Your task to perform on an android device: Find coffee shops on Maps Image 0: 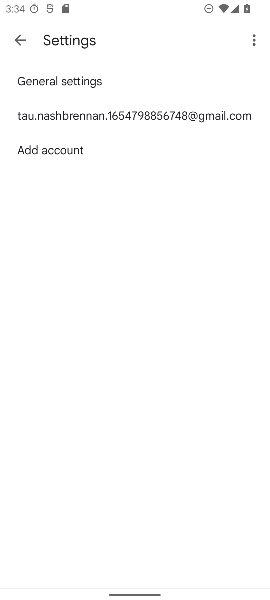
Step 0: press back button
Your task to perform on an android device: Find coffee shops on Maps Image 1: 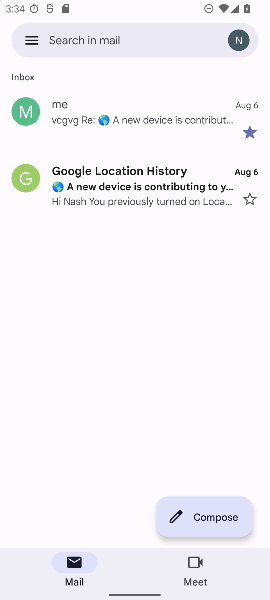
Step 1: press home button
Your task to perform on an android device: Find coffee shops on Maps Image 2: 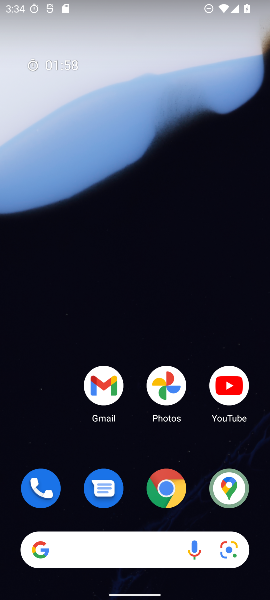
Step 2: click (235, 482)
Your task to perform on an android device: Find coffee shops on Maps Image 3: 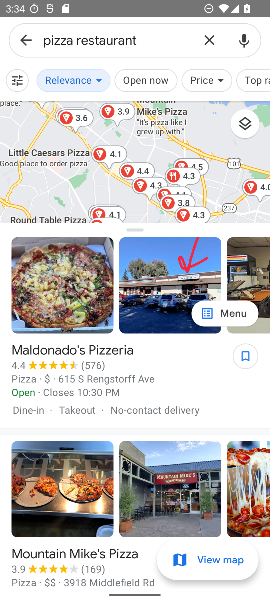
Step 3: click (204, 45)
Your task to perform on an android device: Find coffee shops on Maps Image 4: 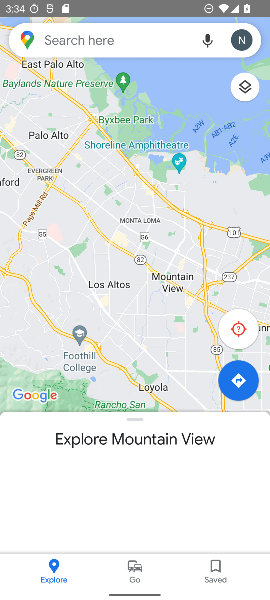
Step 4: click (84, 47)
Your task to perform on an android device: Find coffee shops on Maps Image 5: 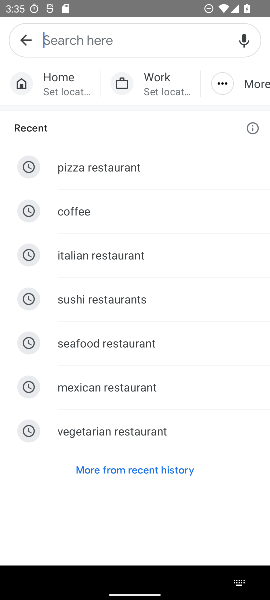
Step 5: type "coffee shops"
Your task to perform on an android device: Find coffee shops on Maps Image 6: 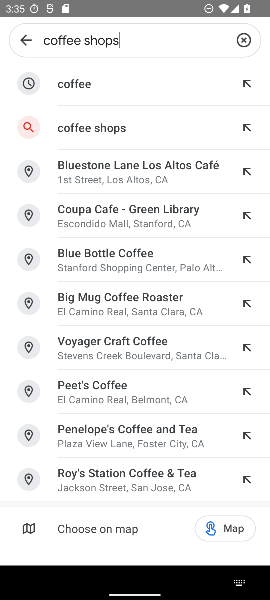
Step 6: click (149, 119)
Your task to perform on an android device: Find coffee shops on Maps Image 7: 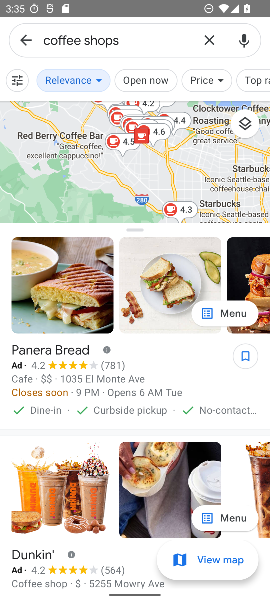
Step 7: task complete